Your task to perform on an android device: change timer sound Image 0: 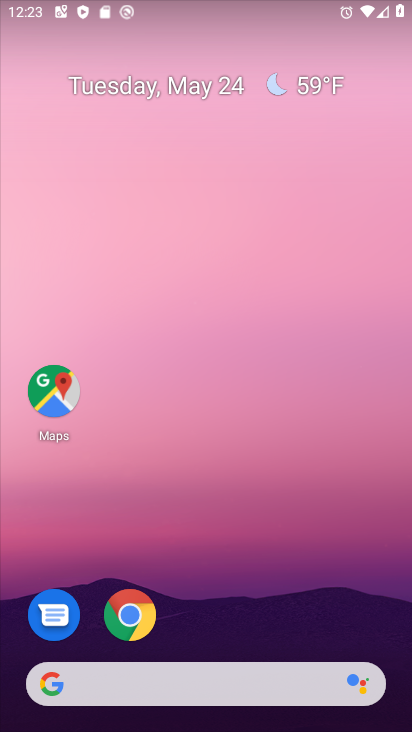
Step 0: drag from (267, 569) to (264, 26)
Your task to perform on an android device: change timer sound Image 1: 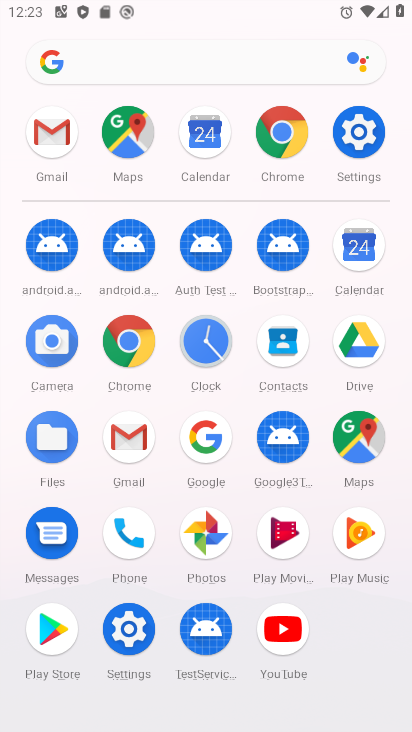
Step 1: drag from (7, 585) to (1, 236)
Your task to perform on an android device: change timer sound Image 2: 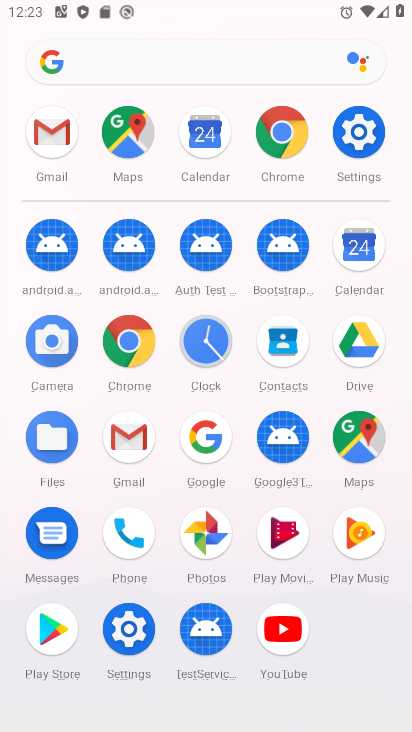
Step 2: click (207, 339)
Your task to perform on an android device: change timer sound Image 3: 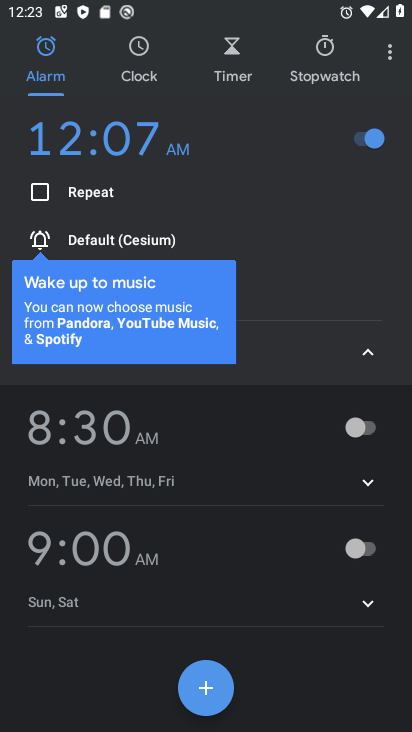
Step 3: click (221, 56)
Your task to perform on an android device: change timer sound Image 4: 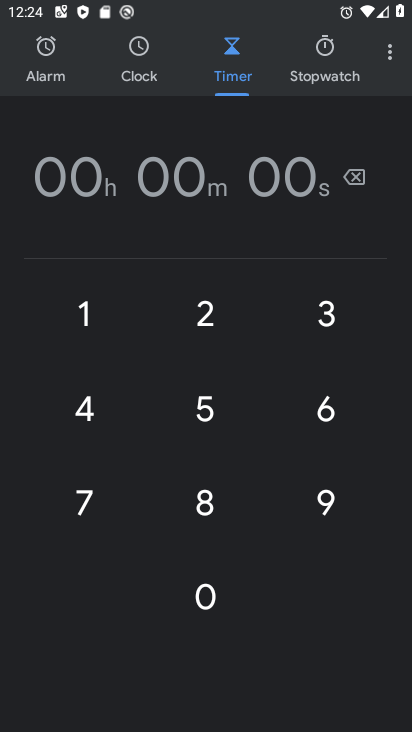
Step 4: drag from (392, 61) to (278, 106)
Your task to perform on an android device: change timer sound Image 5: 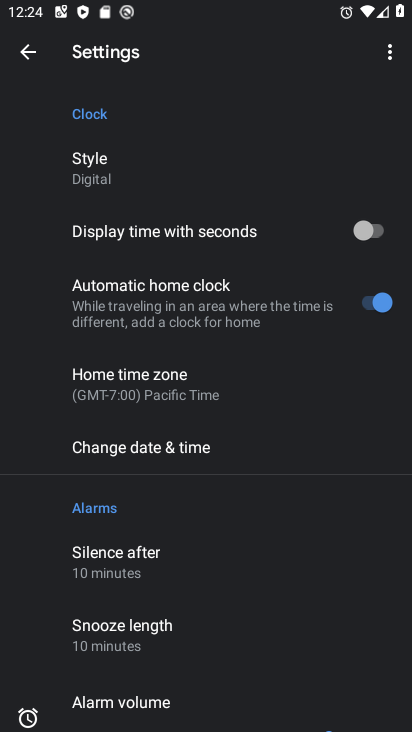
Step 5: drag from (250, 470) to (252, 109)
Your task to perform on an android device: change timer sound Image 6: 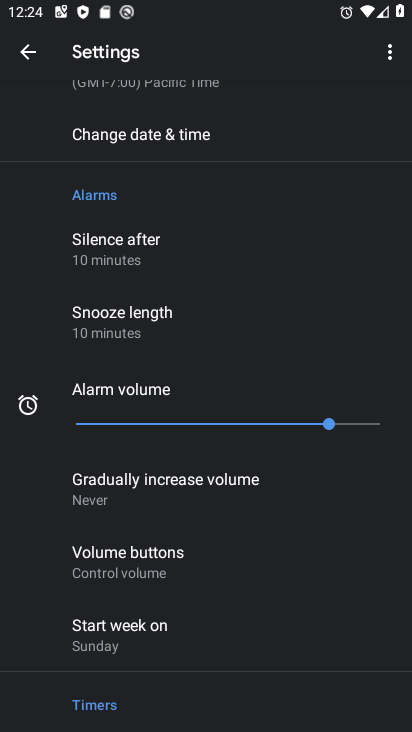
Step 6: drag from (220, 611) to (226, 172)
Your task to perform on an android device: change timer sound Image 7: 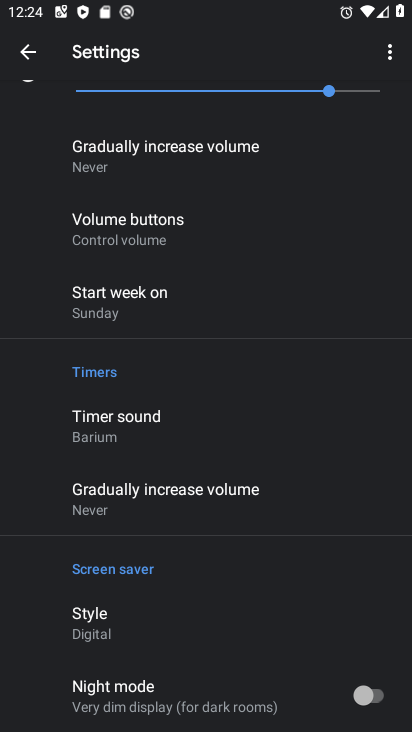
Step 7: drag from (130, 605) to (209, 192)
Your task to perform on an android device: change timer sound Image 8: 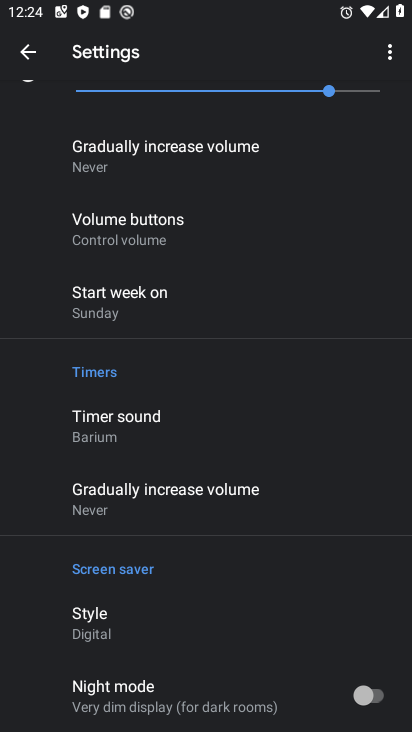
Step 8: drag from (183, 589) to (227, 248)
Your task to perform on an android device: change timer sound Image 9: 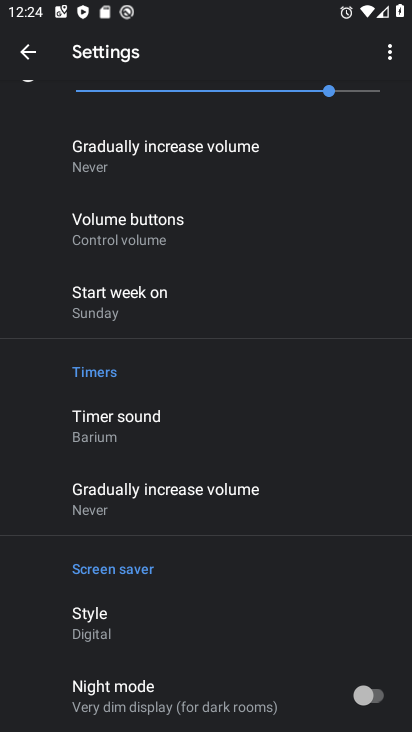
Step 9: click (136, 426)
Your task to perform on an android device: change timer sound Image 10: 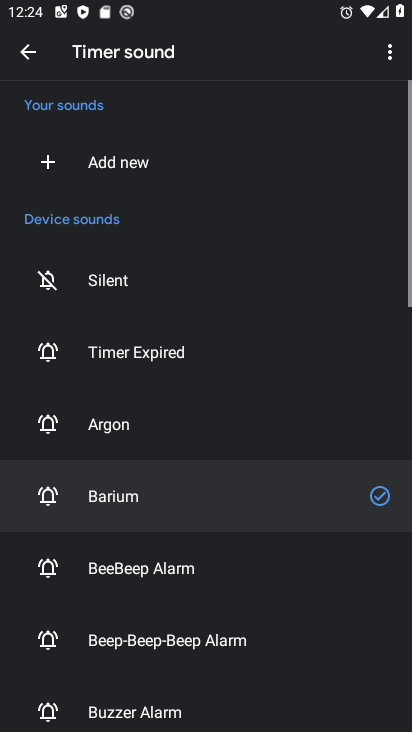
Step 10: click (148, 567)
Your task to perform on an android device: change timer sound Image 11: 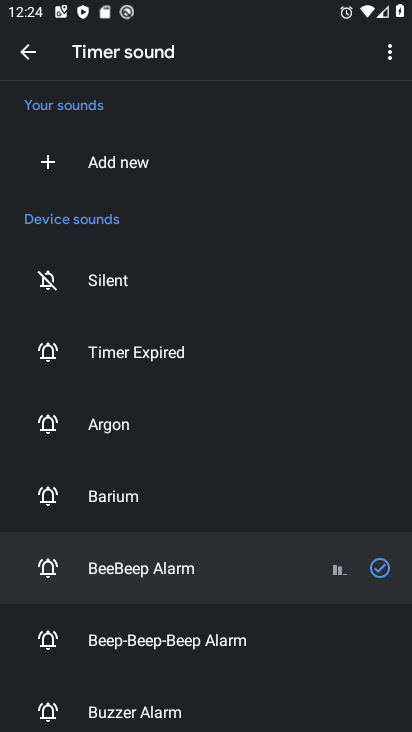
Step 11: task complete